Your task to perform on an android device: Go to privacy settings Image 0: 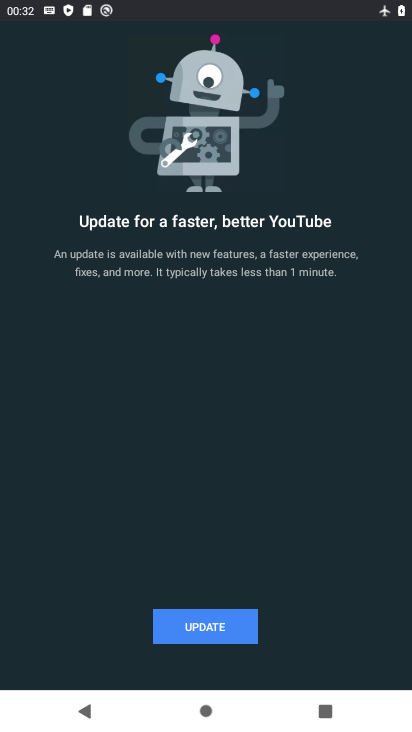
Step 0: press home button
Your task to perform on an android device: Go to privacy settings Image 1: 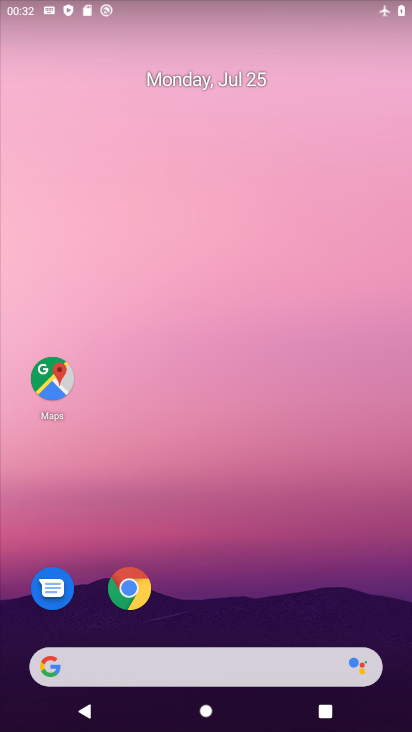
Step 1: drag from (218, 625) to (226, 8)
Your task to perform on an android device: Go to privacy settings Image 2: 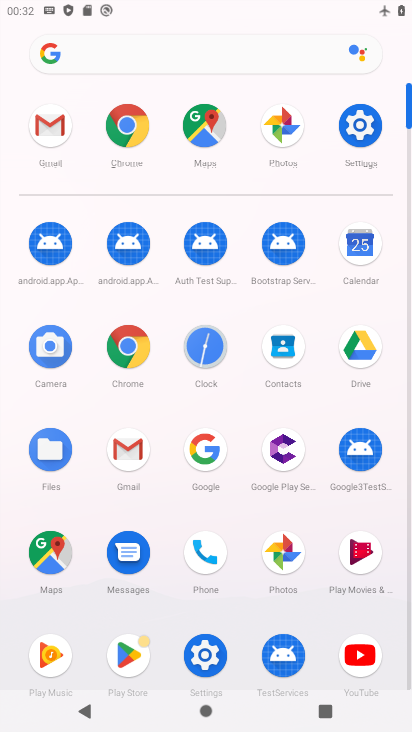
Step 2: click (209, 668)
Your task to perform on an android device: Go to privacy settings Image 3: 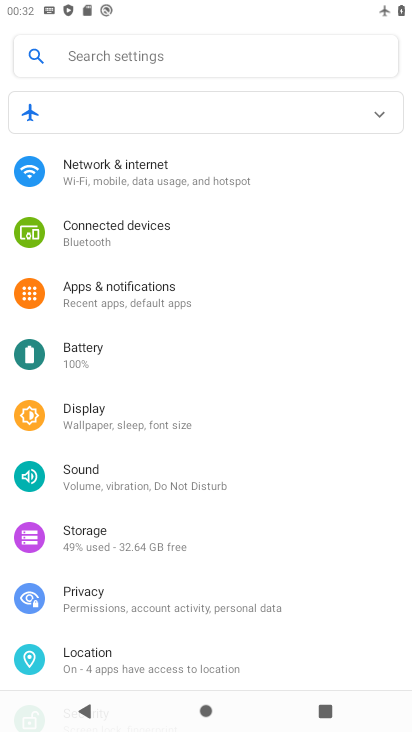
Step 3: click (141, 612)
Your task to perform on an android device: Go to privacy settings Image 4: 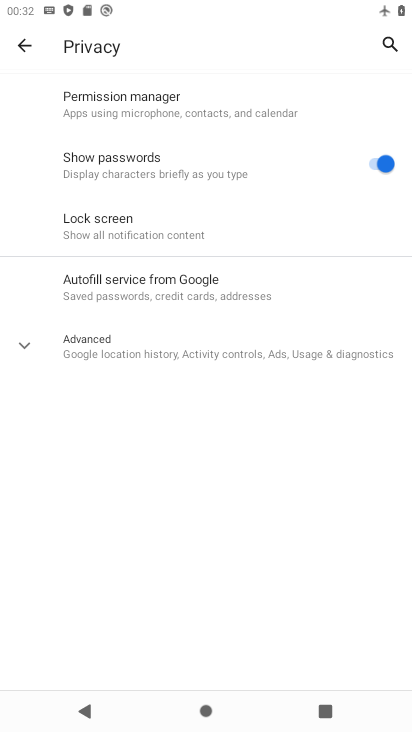
Step 4: task complete